Your task to perform on an android device: turn off picture-in-picture Image 0: 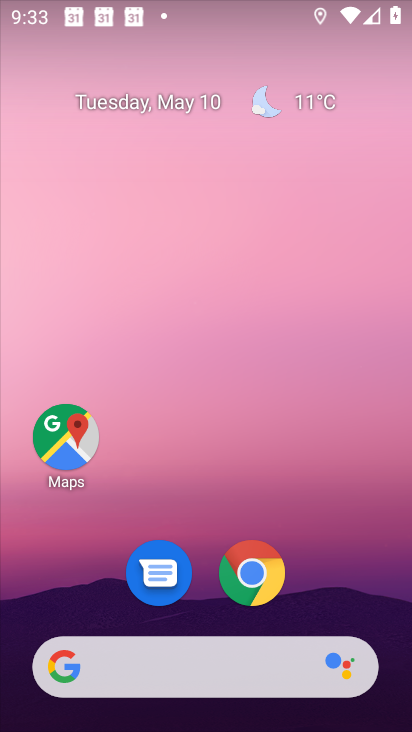
Step 0: drag from (317, 491) to (302, 168)
Your task to perform on an android device: turn off picture-in-picture Image 1: 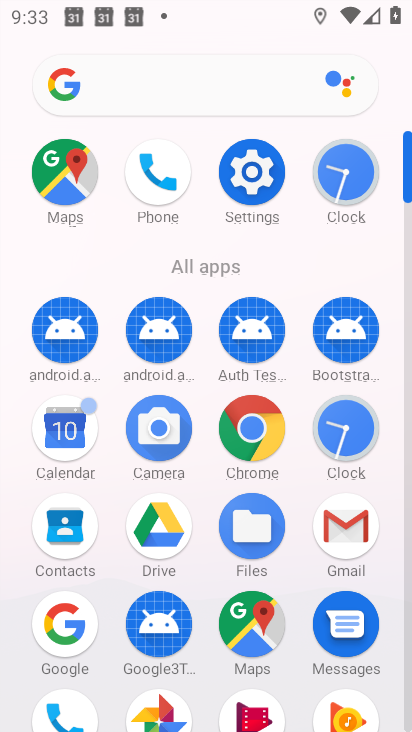
Step 1: click (261, 179)
Your task to perform on an android device: turn off picture-in-picture Image 2: 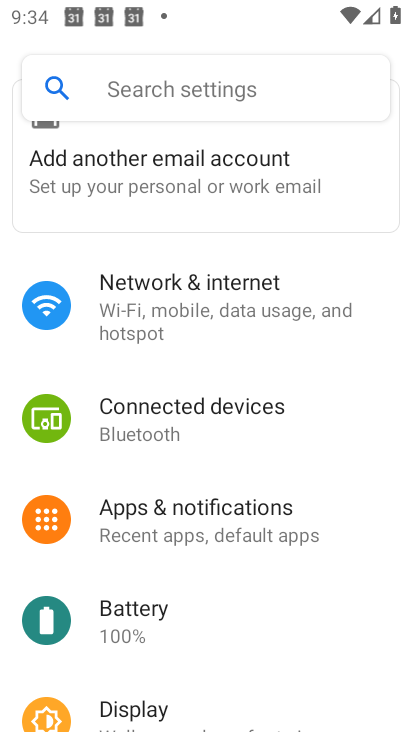
Step 2: click (224, 502)
Your task to perform on an android device: turn off picture-in-picture Image 3: 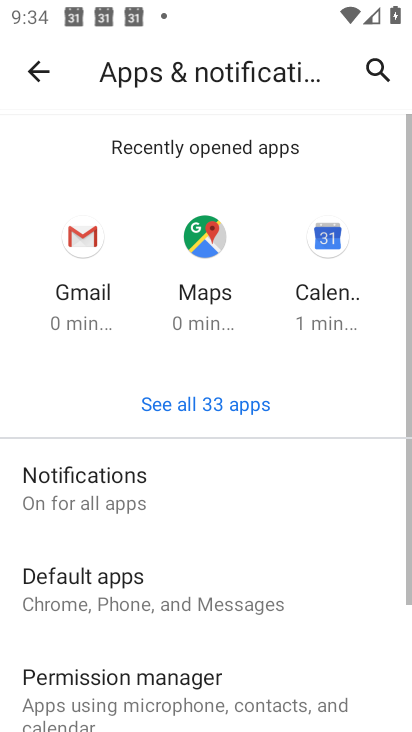
Step 3: drag from (222, 631) to (232, 252)
Your task to perform on an android device: turn off picture-in-picture Image 4: 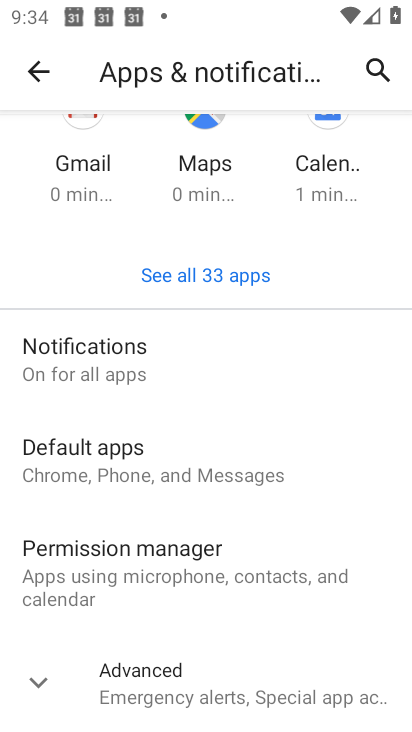
Step 4: click (33, 683)
Your task to perform on an android device: turn off picture-in-picture Image 5: 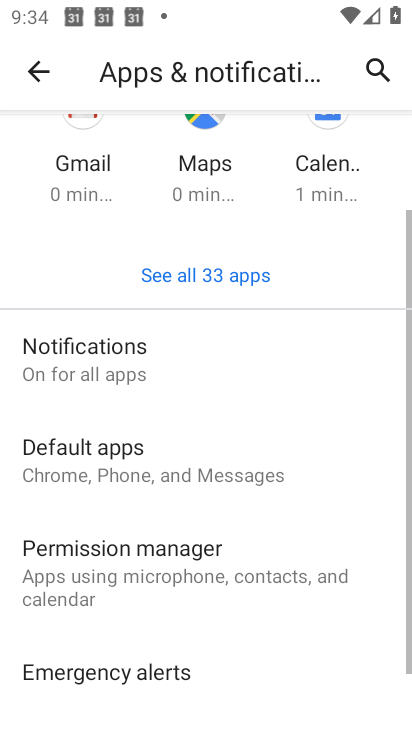
Step 5: drag from (158, 632) to (208, 243)
Your task to perform on an android device: turn off picture-in-picture Image 6: 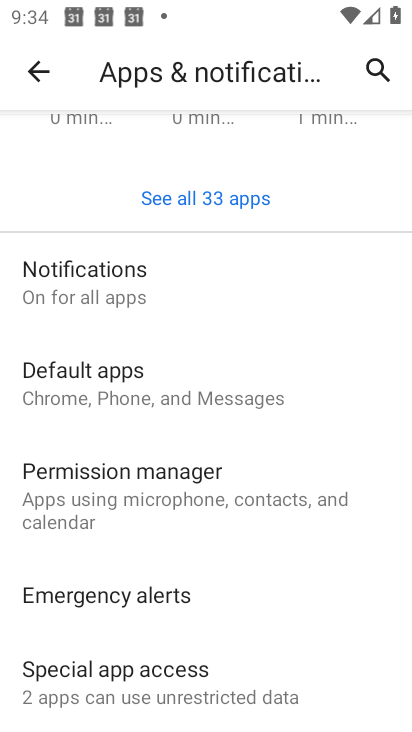
Step 6: click (206, 680)
Your task to perform on an android device: turn off picture-in-picture Image 7: 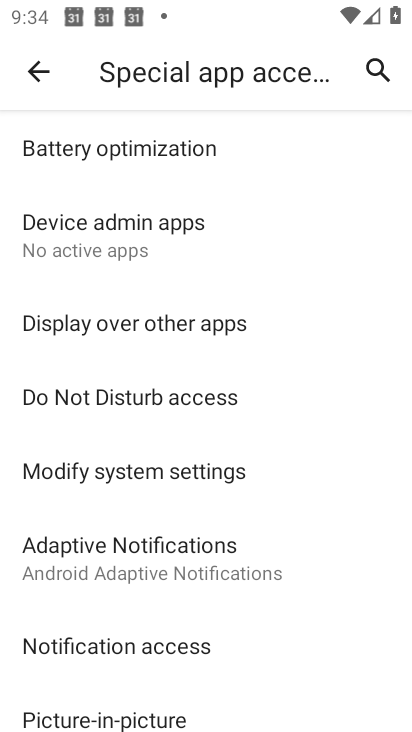
Step 7: click (172, 721)
Your task to perform on an android device: turn off picture-in-picture Image 8: 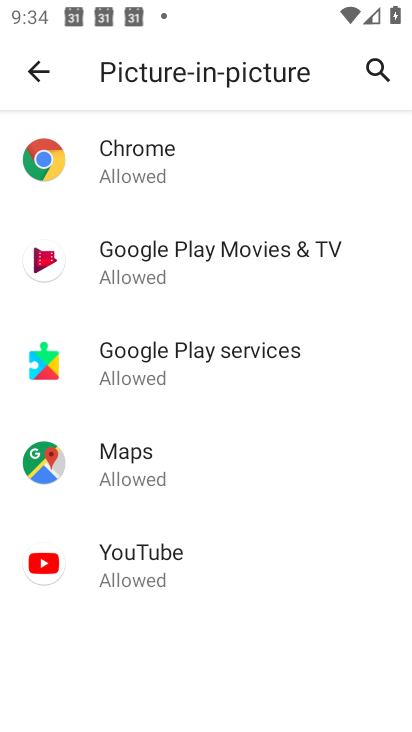
Step 8: click (180, 170)
Your task to perform on an android device: turn off picture-in-picture Image 9: 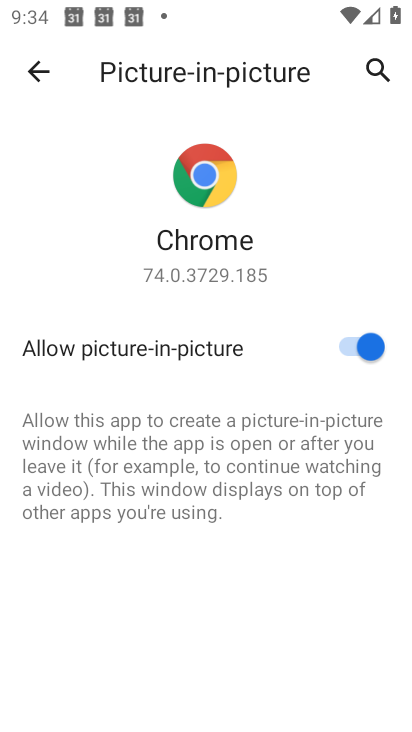
Step 9: click (365, 350)
Your task to perform on an android device: turn off picture-in-picture Image 10: 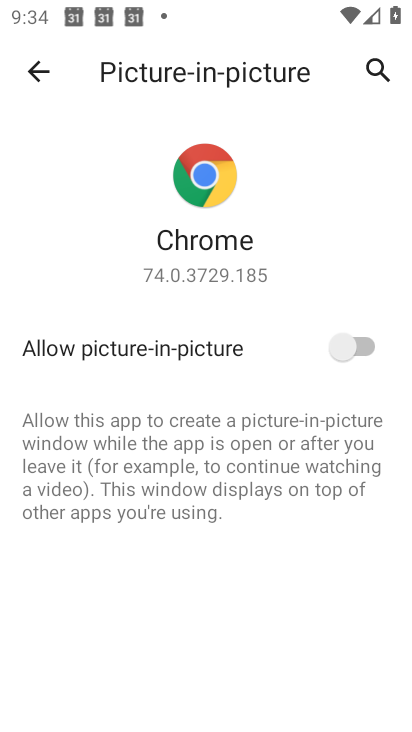
Step 10: task complete